Your task to perform on an android device: Set the phone to "Do not disturb". Image 0: 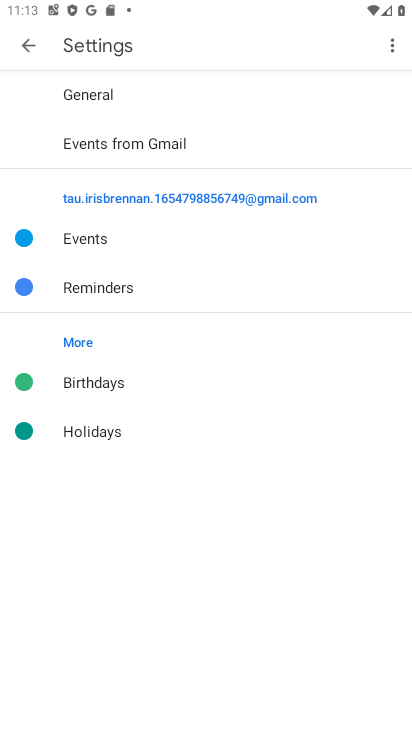
Step 0: press home button
Your task to perform on an android device: Set the phone to "Do not disturb". Image 1: 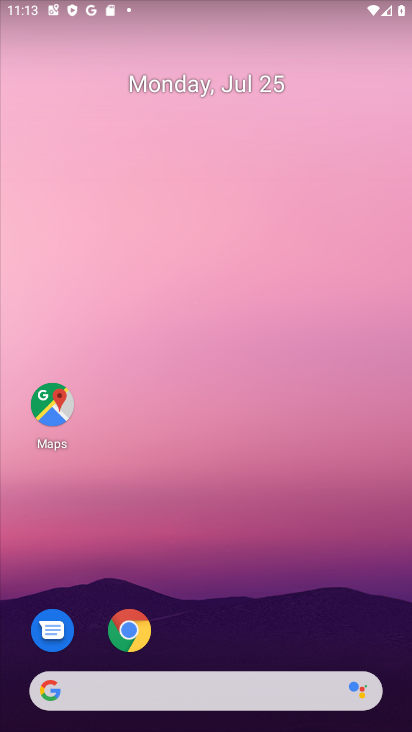
Step 1: drag from (226, 653) to (239, 77)
Your task to perform on an android device: Set the phone to "Do not disturb". Image 2: 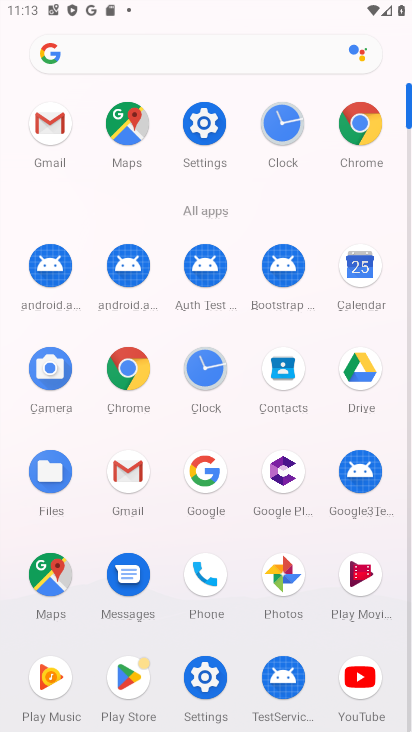
Step 2: click (204, 130)
Your task to perform on an android device: Set the phone to "Do not disturb". Image 3: 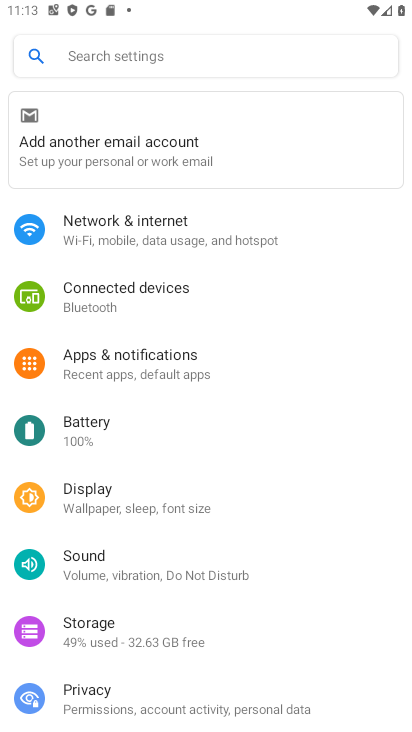
Step 3: click (72, 560)
Your task to perform on an android device: Set the phone to "Do not disturb". Image 4: 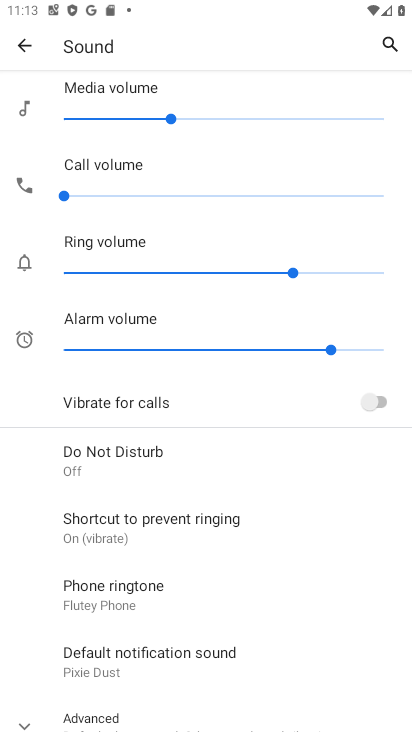
Step 4: click (103, 464)
Your task to perform on an android device: Set the phone to "Do not disturb". Image 5: 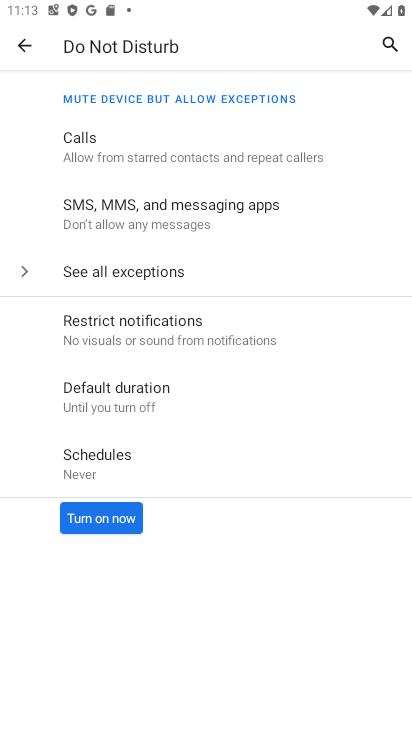
Step 5: click (99, 514)
Your task to perform on an android device: Set the phone to "Do not disturb". Image 6: 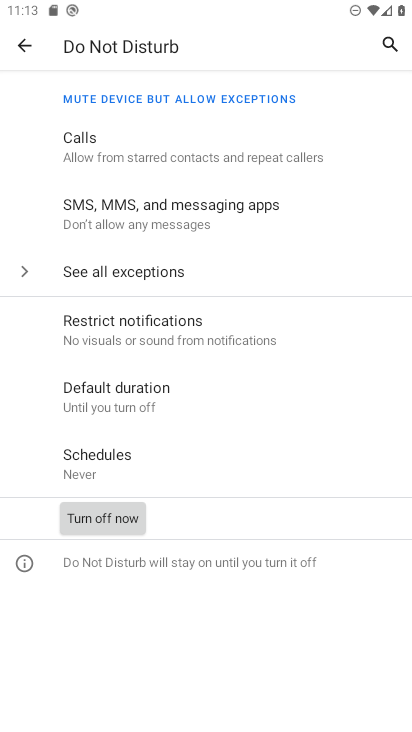
Step 6: task complete